Your task to perform on an android device: change the clock display to digital Image 0: 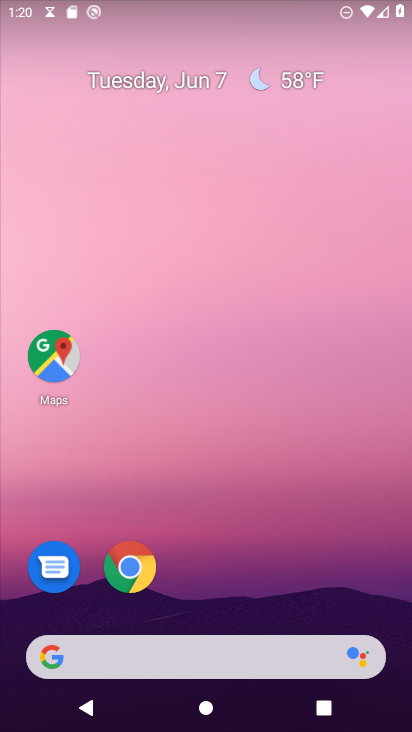
Step 0: drag from (399, 706) to (392, 151)
Your task to perform on an android device: change the clock display to digital Image 1: 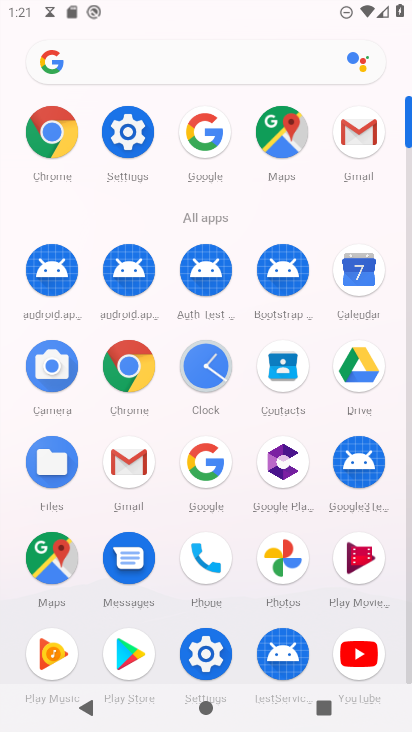
Step 1: click (212, 366)
Your task to perform on an android device: change the clock display to digital Image 2: 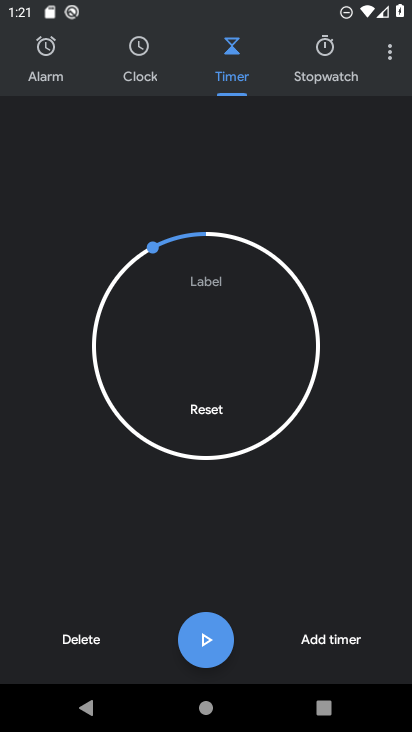
Step 2: click (385, 56)
Your task to perform on an android device: change the clock display to digital Image 3: 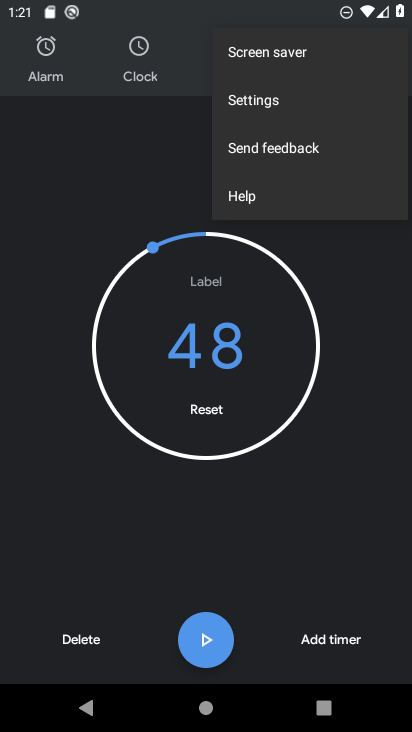
Step 3: click (250, 108)
Your task to perform on an android device: change the clock display to digital Image 4: 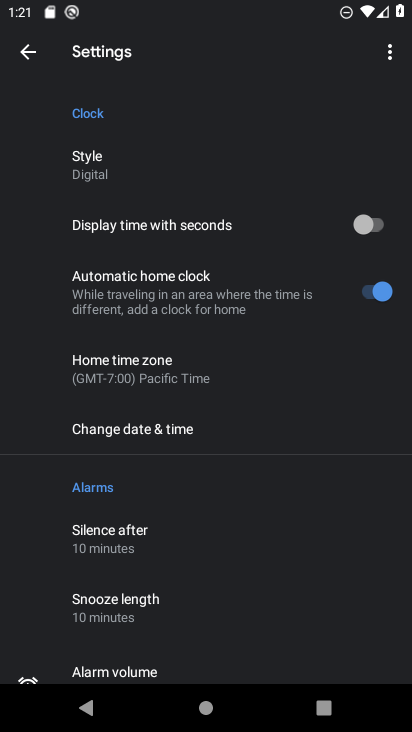
Step 4: click (276, 248)
Your task to perform on an android device: change the clock display to digital Image 5: 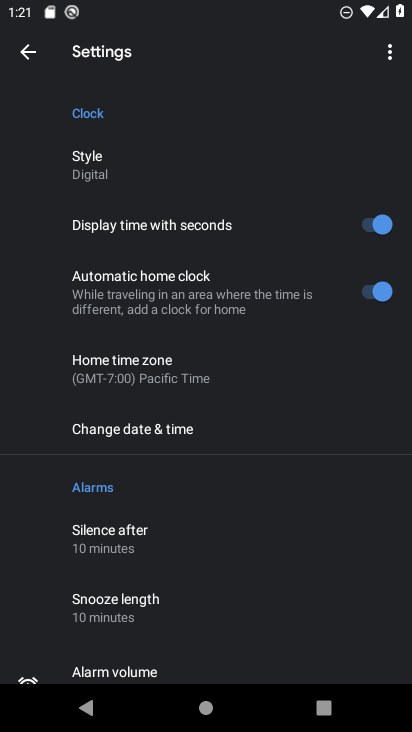
Step 5: press home button
Your task to perform on an android device: change the clock display to digital Image 6: 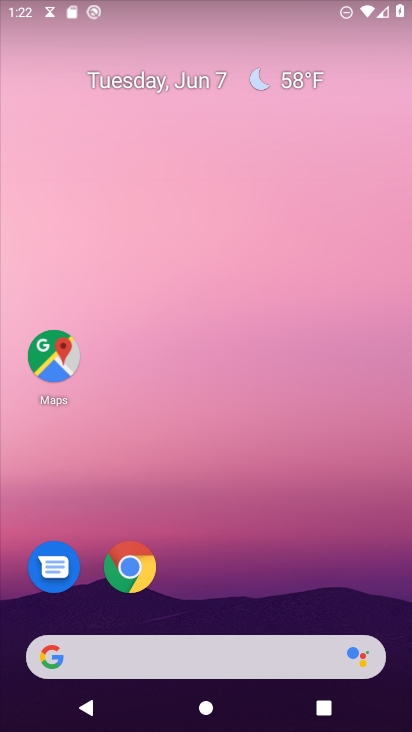
Step 6: drag from (395, 627) to (361, 77)
Your task to perform on an android device: change the clock display to digital Image 7: 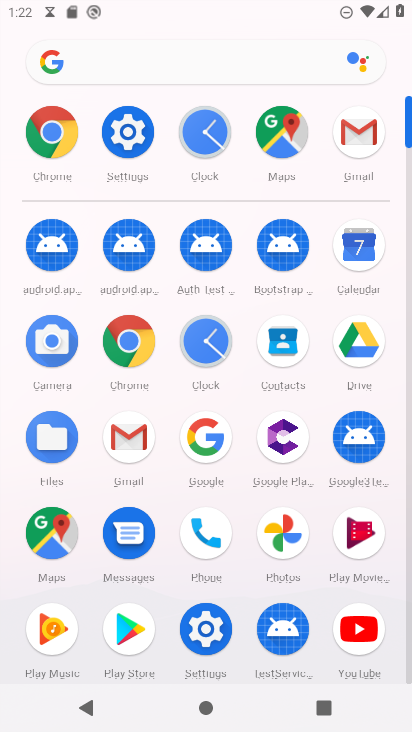
Step 7: click (199, 346)
Your task to perform on an android device: change the clock display to digital Image 8: 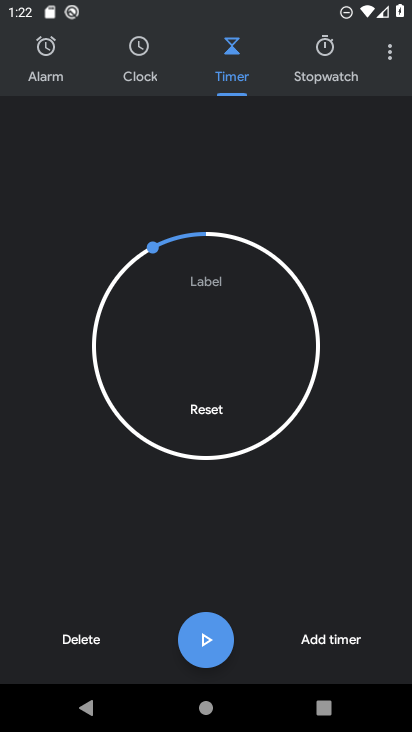
Step 8: click (386, 52)
Your task to perform on an android device: change the clock display to digital Image 9: 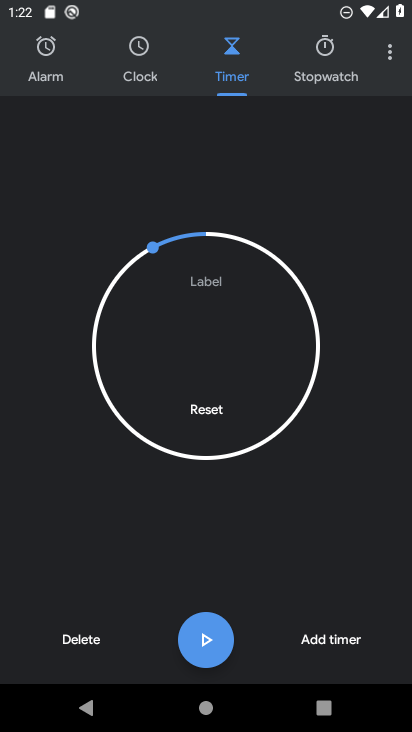
Step 9: click (401, 53)
Your task to perform on an android device: change the clock display to digital Image 10: 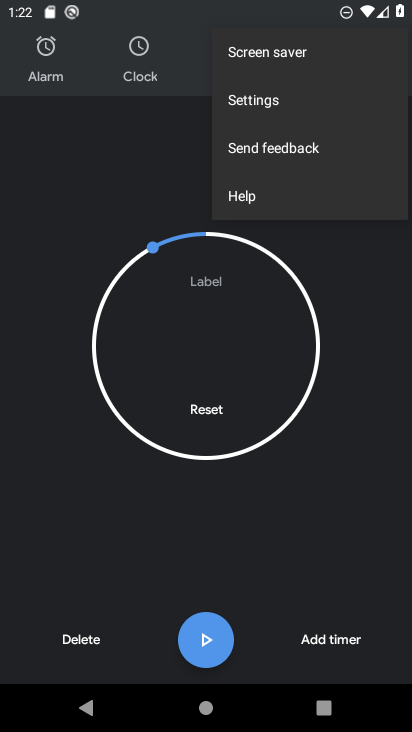
Step 10: click (263, 78)
Your task to perform on an android device: change the clock display to digital Image 11: 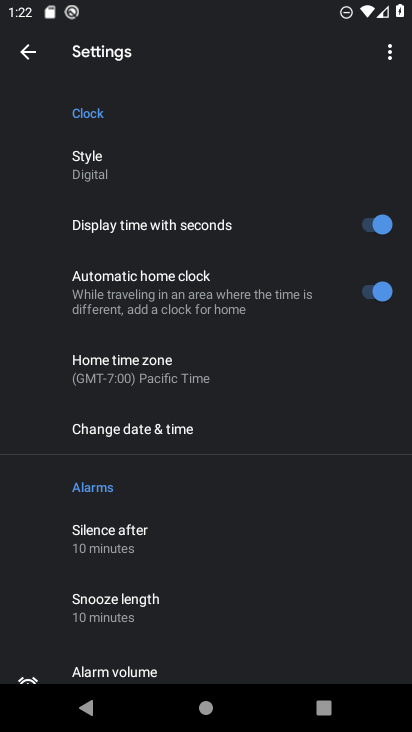
Step 11: click (91, 165)
Your task to perform on an android device: change the clock display to digital Image 12: 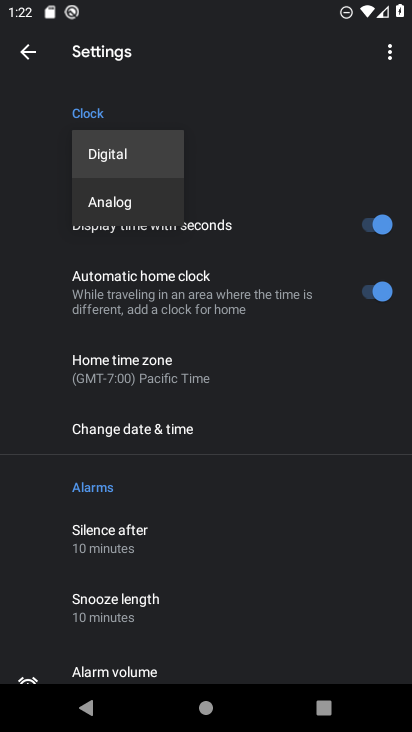
Step 12: click (123, 162)
Your task to perform on an android device: change the clock display to digital Image 13: 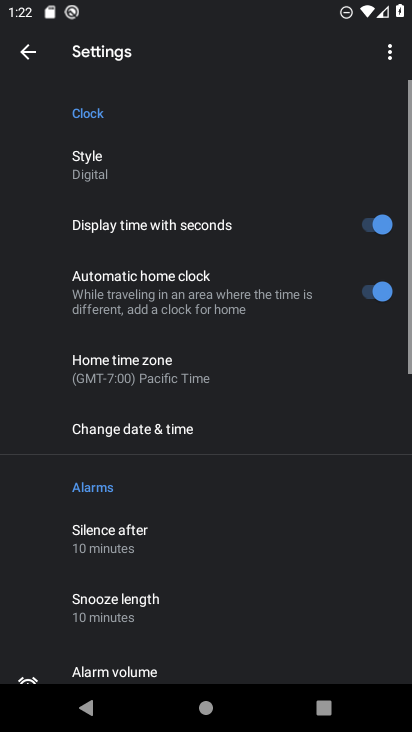
Step 13: task complete